Your task to perform on an android device: toggle notifications settings in the gmail app Image 0: 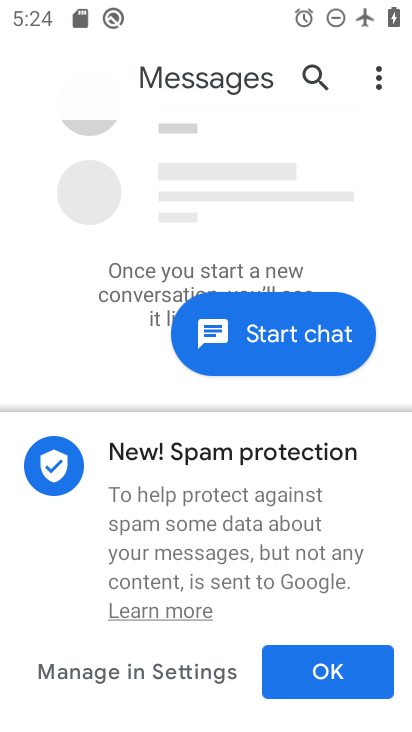
Step 0: press home button
Your task to perform on an android device: toggle notifications settings in the gmail app Image 1: 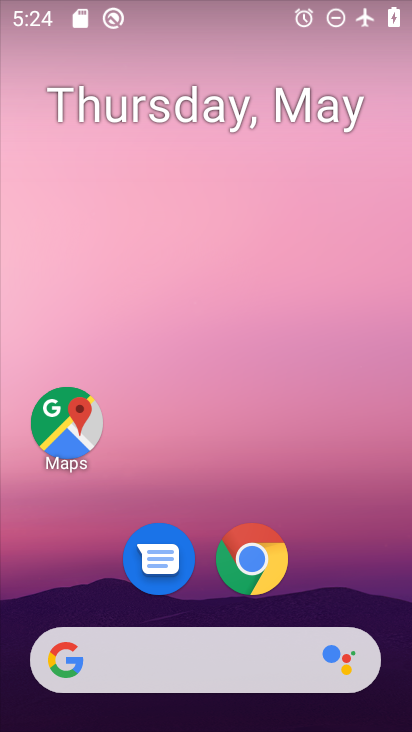
Step 1: drag from (351, 616) to (155, 65)
Your task to perform on an android device: toggle notifications settings in the gmail app Image 2: 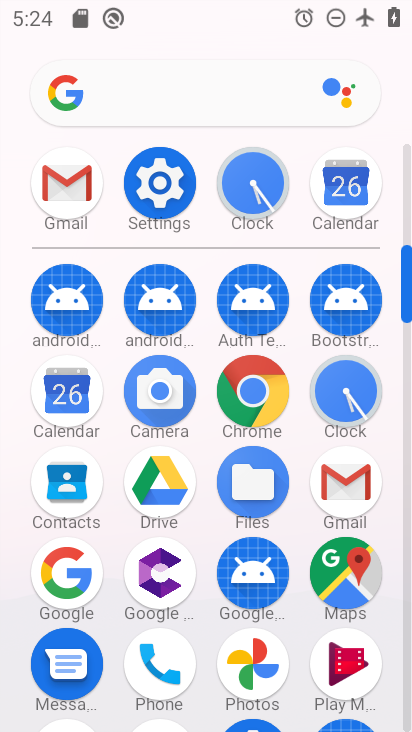
Step 2: click (351, 479)
Your task to perform on an android device: toggle notifications settings in the gmail app Image 3: 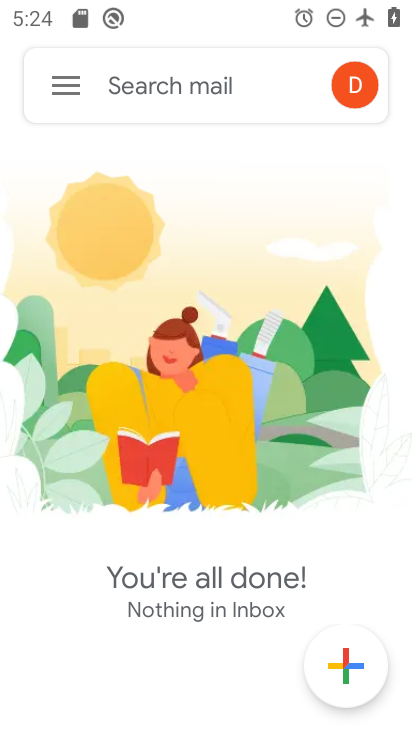
Step 3: click (64, 89)
Your task to perform on an android device: toggle notifications settings in the gmail app Image 4: 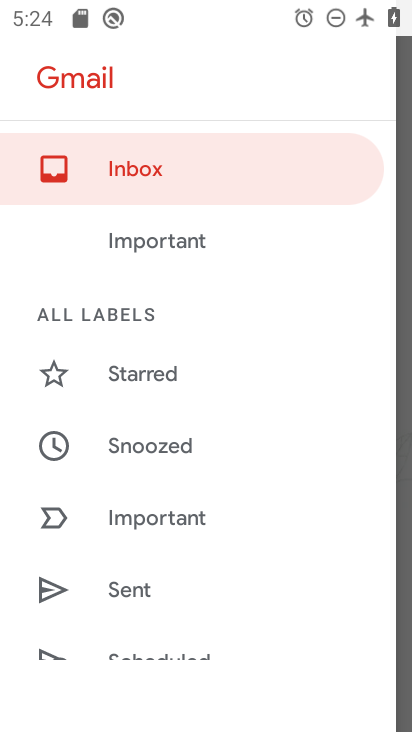
Step 4: drag from (199, 584) to (184, 50)
Your task to perform on an android device: toggle notifications settings in the gmail app Image 5: 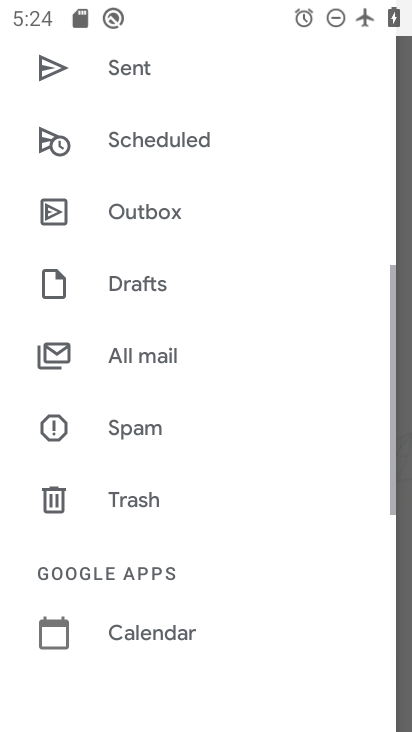
Step 5: drag from (202, 549) to (217, 113)
Your task to perform on an android device: toggle notifications settings in the gmail app Image 6: 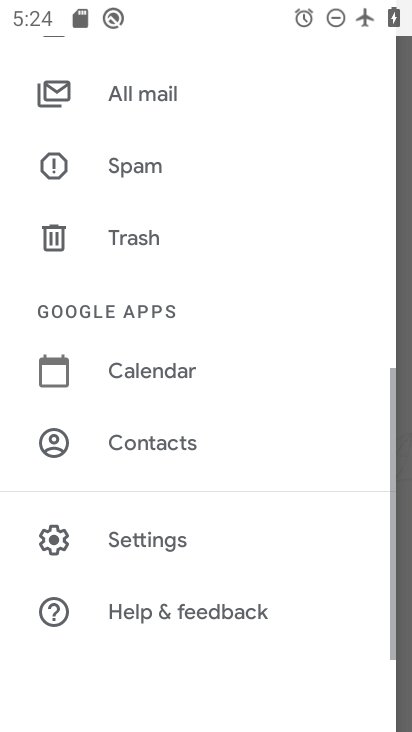
Step 6: click (159, 520)
Your task to perform on an android device: toggle notifications settings in the gmail app Image 7: 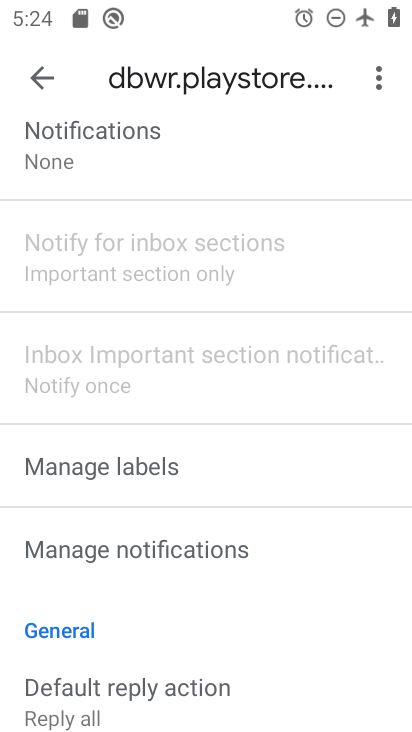
Step 7: click (156, 554)
Your task to perform on an android device: toggle notifications settings in the gmail app Image 8: 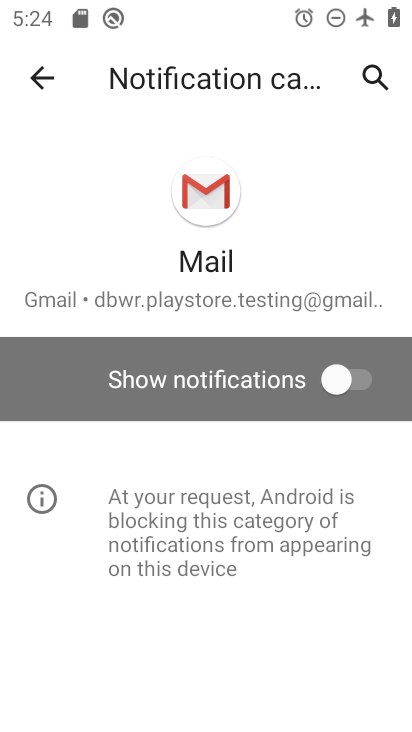
Step 8: click (343, 373)
Your task to perform on an android device: toggle notifications settings in the gmail app Image 9: 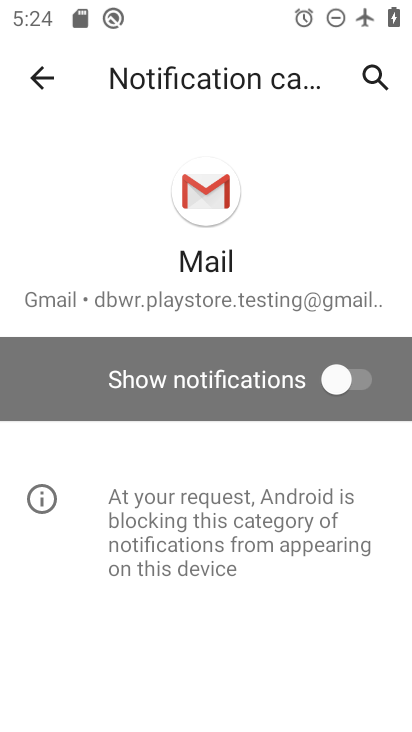
Step 9: click (333, 385)
Your task to perform on an android device: toggle notifications settings in the gmail app Image 10: 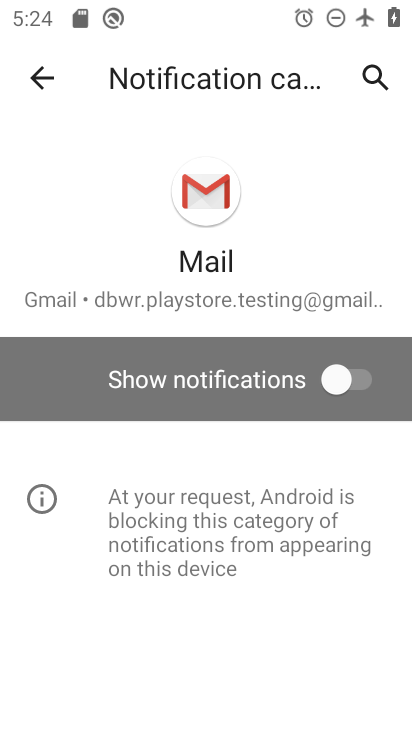
Step 10: task complete